Your task to perform on an android device: turn on sleep mode Image 0: 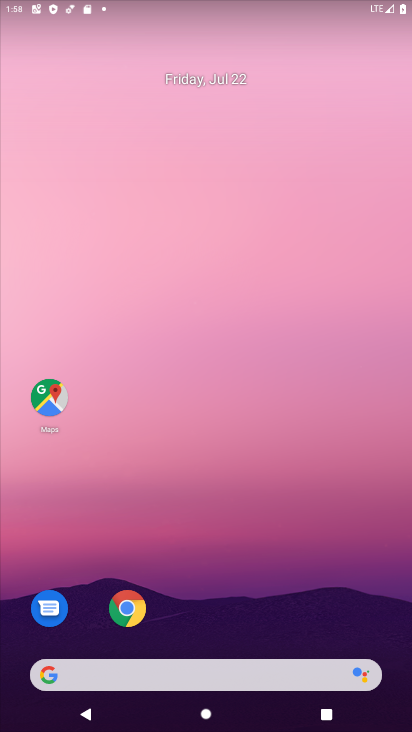
Step 0: drag from (401, 614) to (359, 4)
Your task to perform on an android device: turn on sleep mode Image 1: 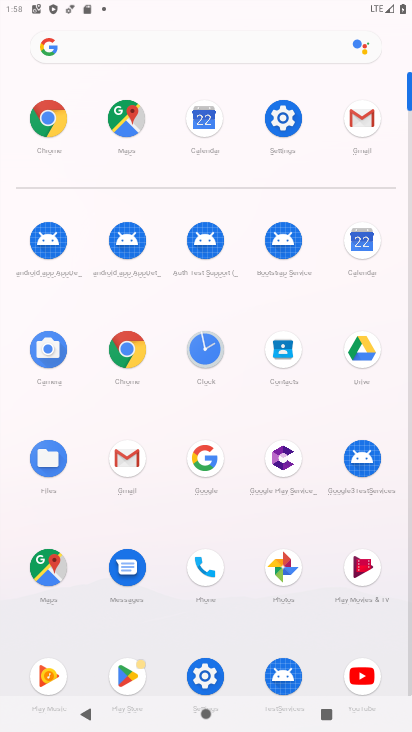
Step 1: click (283, 117)
Your task to perform on an android device: turn on sleep mode Image 2: 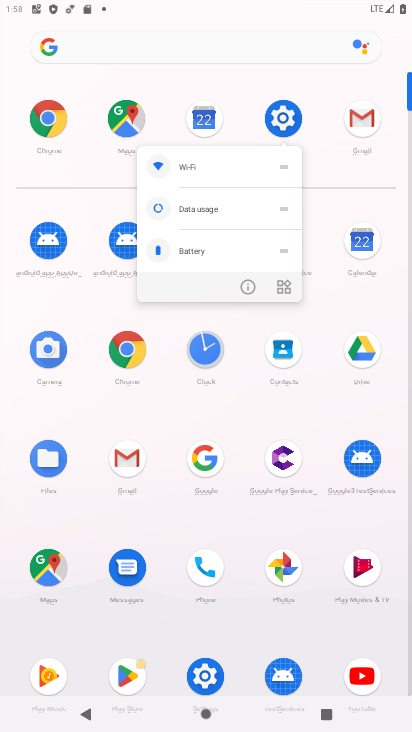
Step 2: click (280, 117)
Your task to perform on an android device: turn on sleep mode Image 3: 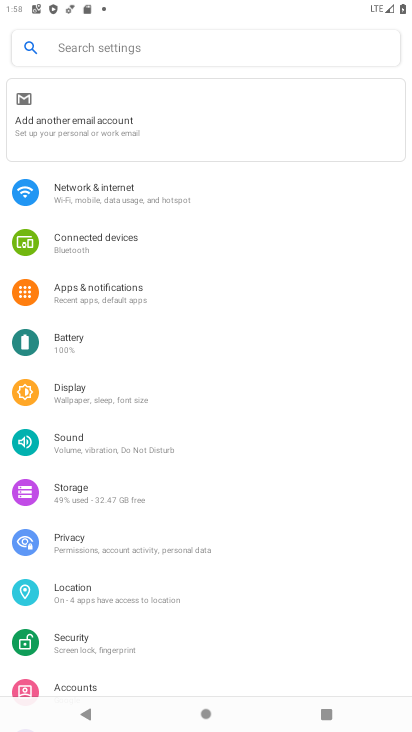
Step 3: drag from (271, 632) to (287, 248)
Your task to perform on an android device: turn on sleep mode Image 4: 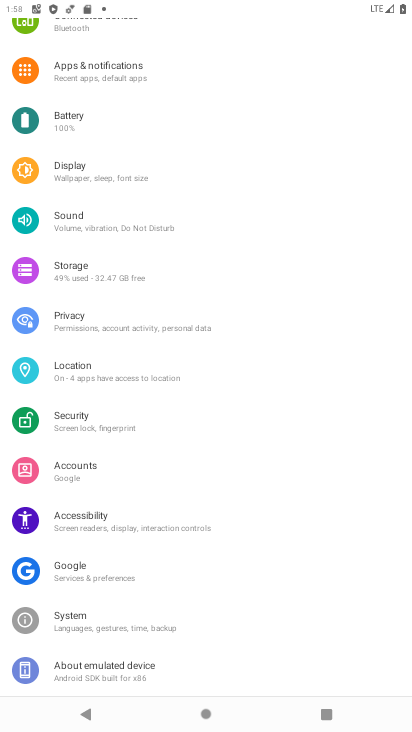
Step 4: drag from (260, 641) to (283, 253)
Your task to perform on an android device: turn on sleep mode Image 5: 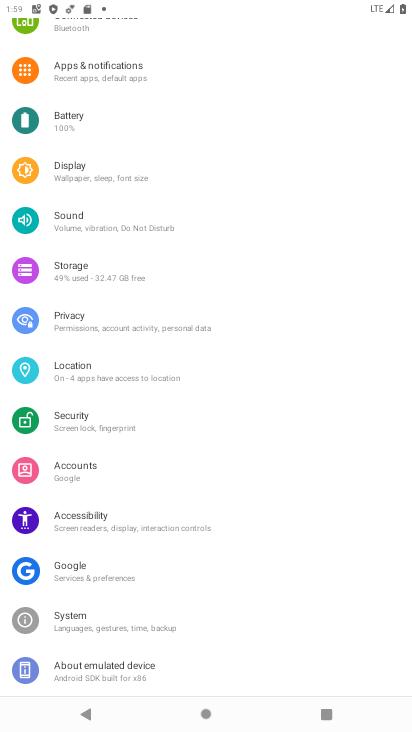
Step 5: click (65, 221)
Your task to perform on an android device: turn on sleep mode Image 6: 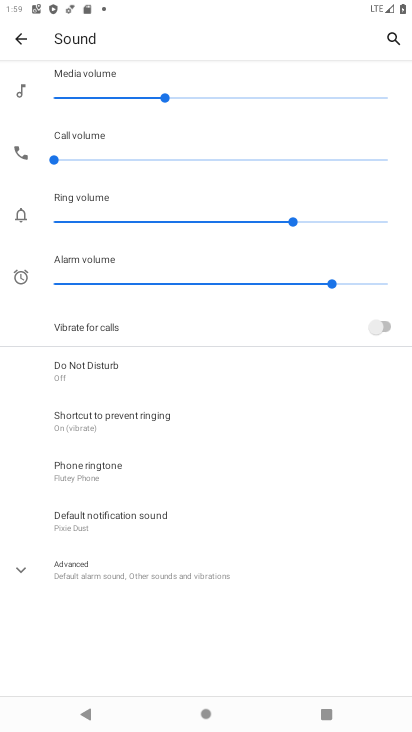
Step 6: click (22, 41)
Your task to perform on an android device: turn on sleep mode Image 7: 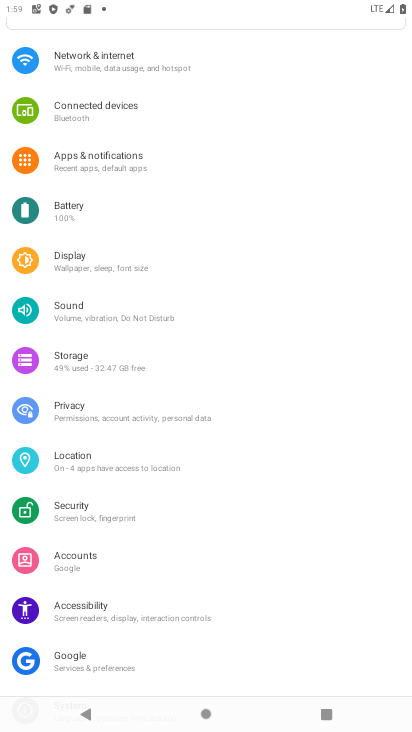
Step 7: click (67, 256)
Your task to perform on an android device: turn on sleep mode Image 8: 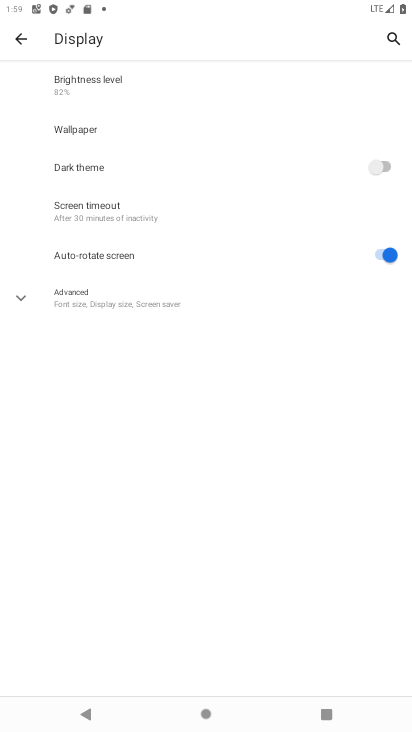
Step 8: click (79, 210)
Your task to perform on an android device: turn on sleep mode Image 9: 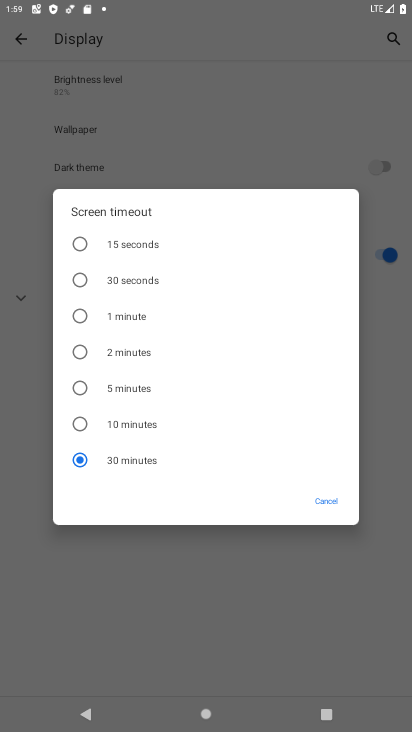
Step 9: task complete